Your task to perform on an android device: toggle improve location accuracy Image 0: 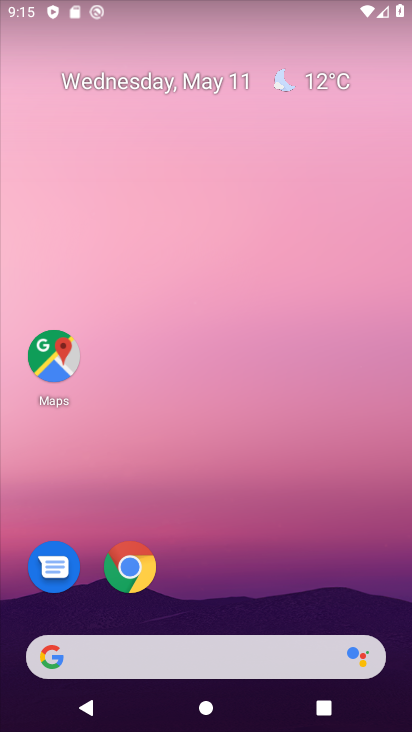
Step 0: drag from (115, 611) to (188, 201)
Your task to perform on an android device: toggle improve location accuracy Image 1: 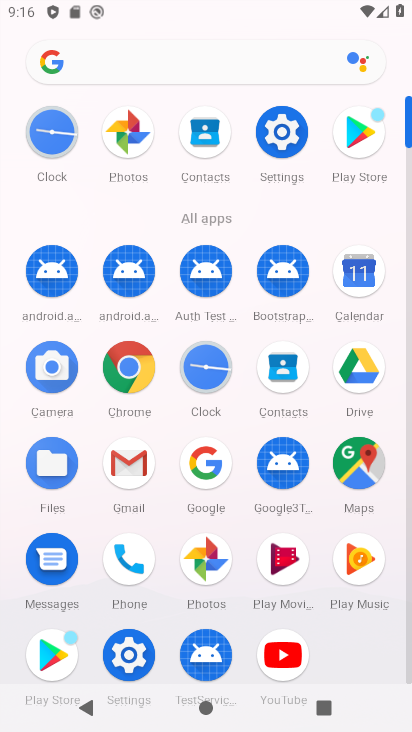
Step 1: click (278, 132)
Your task to perform on an android device: toggle improve location accuracy Image 2: 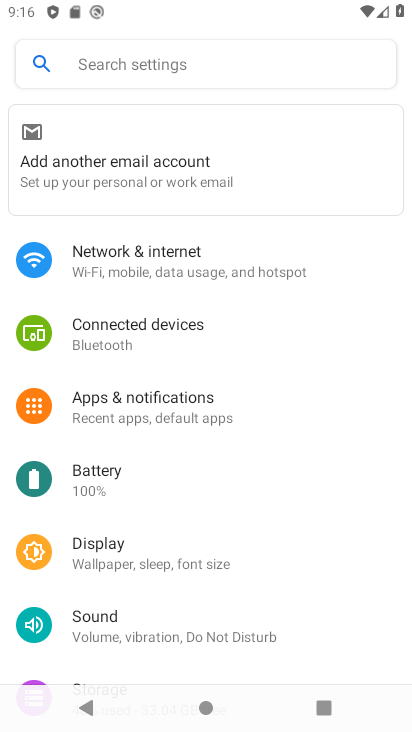
Step 2: drag from (161, 550) to (201, 237)
Your task to perform on an android device: toggle improve location accuracy Image 3: 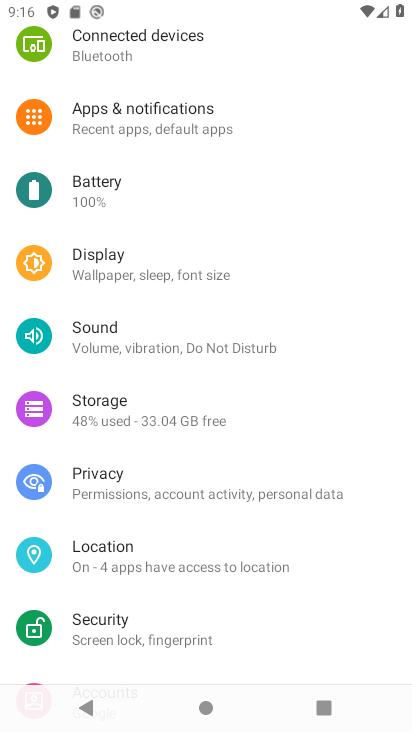
Step 3: click (150, 548)
Your task to perform on an android device: toggle improve location accuracy Image 4: 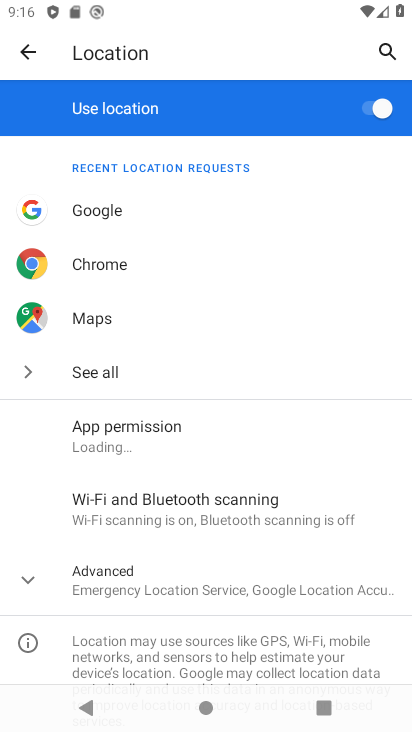
Step 4: drag from (167, 595) to (245, 325)
Your task to perform on an android device: toggle improve location accuracy Image 5: 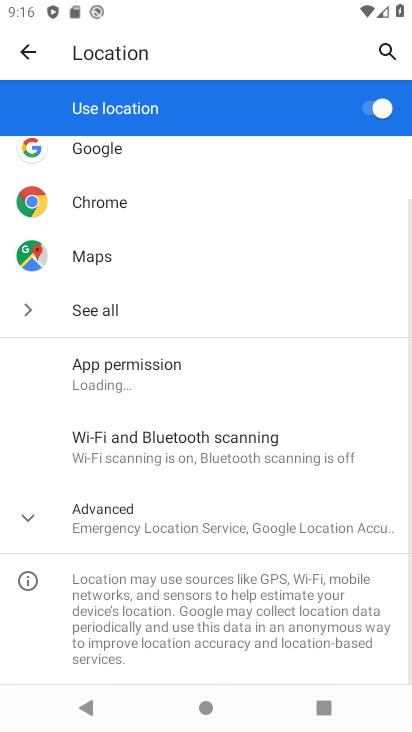
Step 5: click (29, 512)
Your task to perform on an android device: toggle improve location accuracy Image 6: 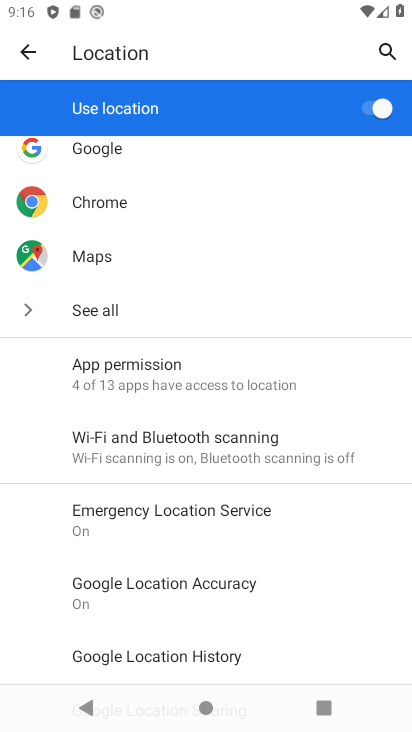
Step 6: click (209, 589)
Your task to perform on an android device: toggle improve location accuracy Image 7: 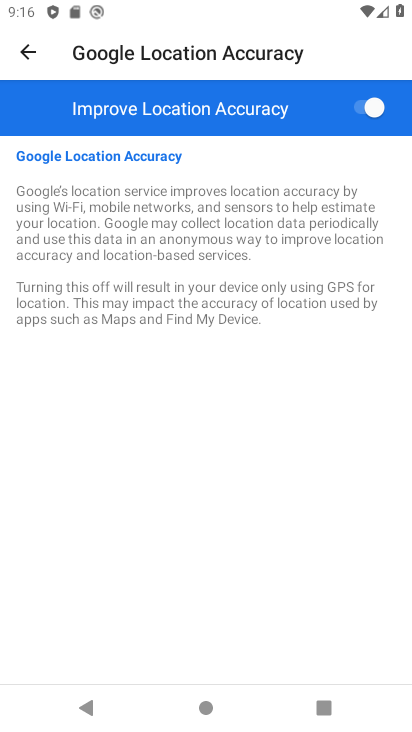
Step 7: click (356, 113)
Your task to perform on an android device: toggle improve location accuracy Image 8: 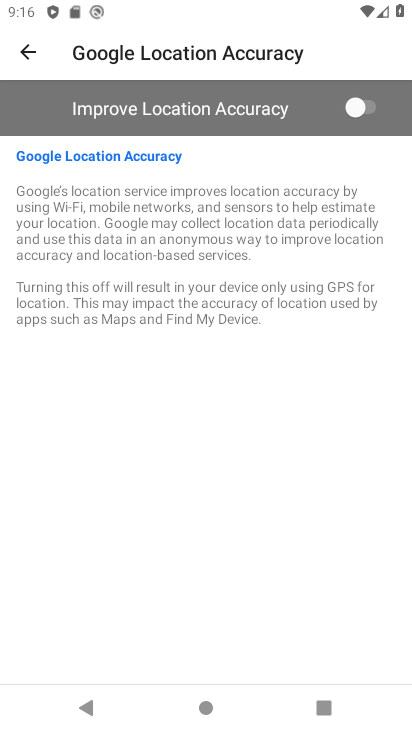
Step 8: task complete